Your task to perform on an android device: open wifi settings Image 0: 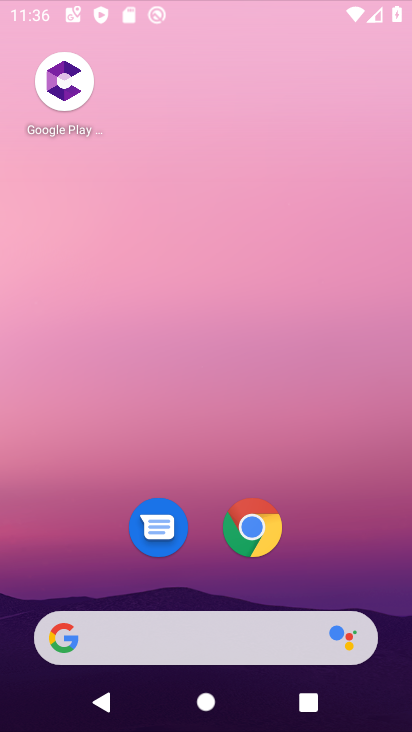
Step 0: click (307, 37)
Your task to perform on an android device: open wifi settings Image 1: 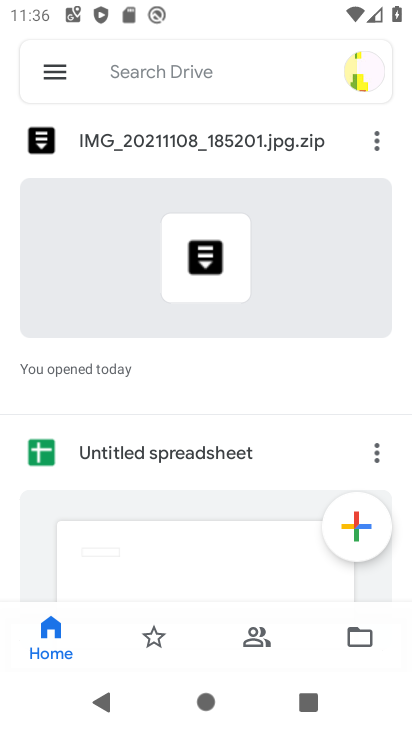
Step 1: press home button
Your task to perform on an android device: open wifi settings Image 2: 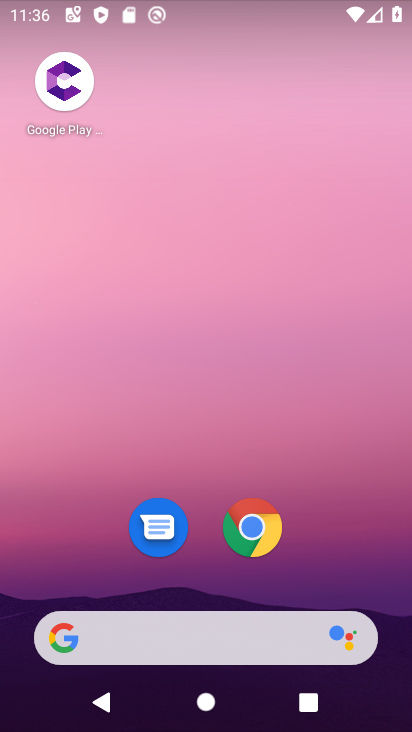
Step 2: drag from (349, 563) to (317, 123)
Your task to perform on an android device: open wifi settings Image 3: 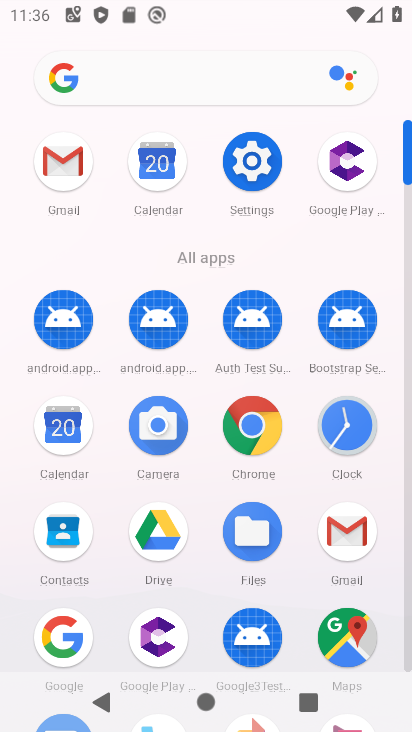
Step 3: click (261, 160)
Your task to perform on an android device: open wifi settings Image 4: 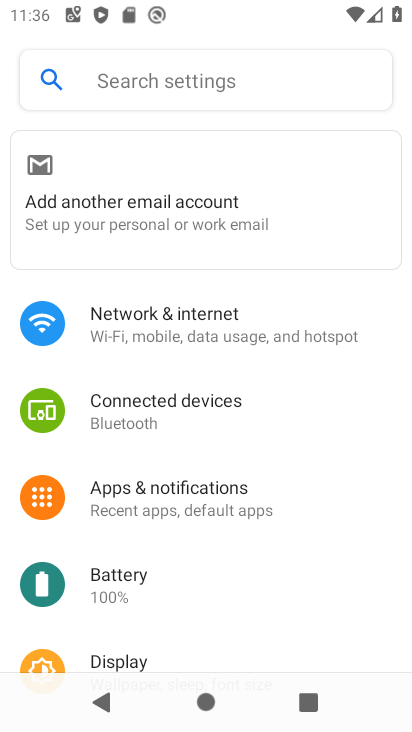
Step 4: click (167, 339)
Your task to perform on an android device: open wifi settings Image 5: 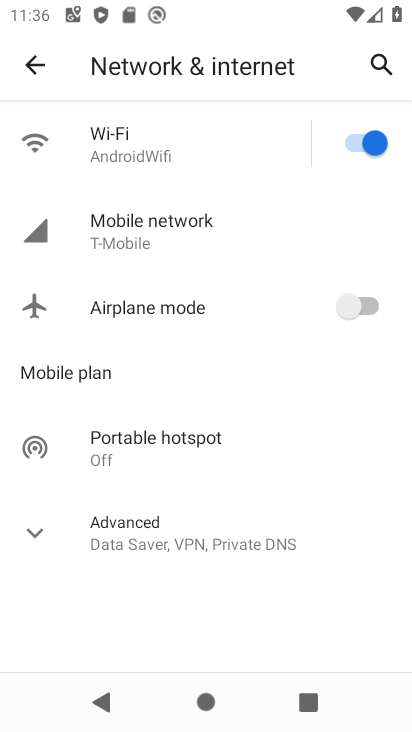
Step 5: click (160, 156)
Your task to perform on an android device: open wifi settings Image 6: 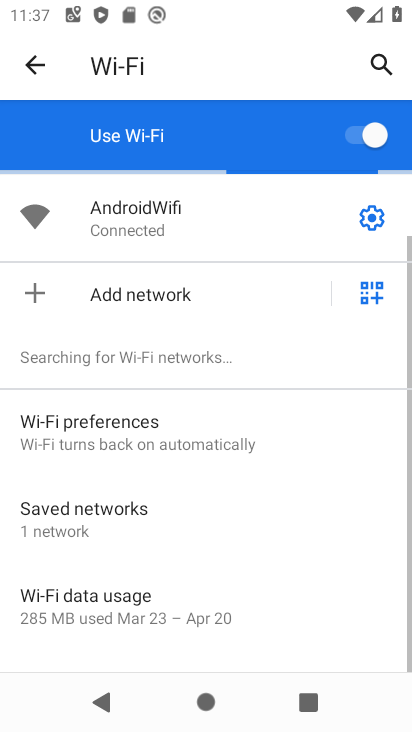
Step 6: click (367, 217)
Your task to perform on an android device: open wifi settings Image 7: 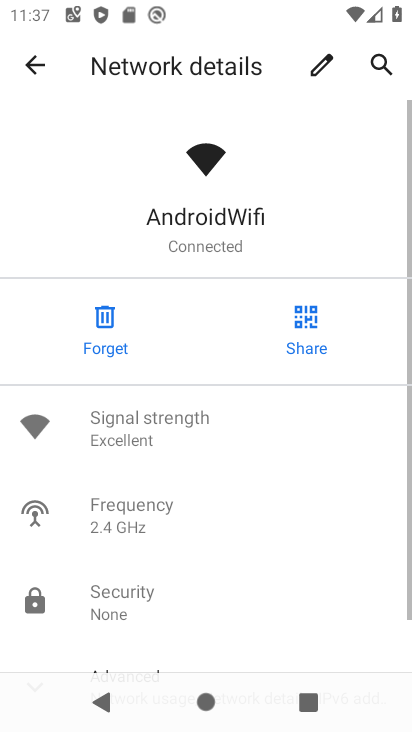
Step 7: task complete